Your task to perform on an android device: What's on my calendar tomorrow? Image 0: 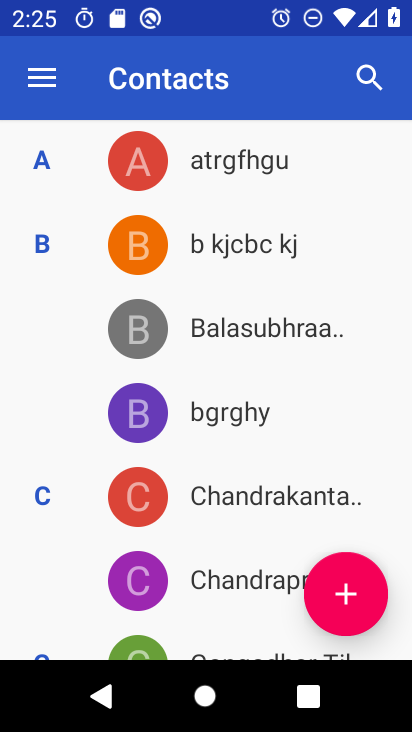
Step 0: press back button
Your task to perform on an android device: What's on my calendar tomorrow? Image 1: 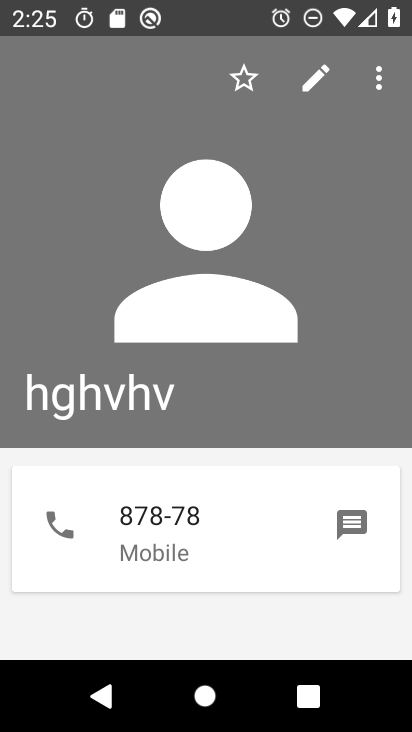
Step 1: press back button
Your task to perform on an android device: What's on my calendar tomorrow? Image 2: 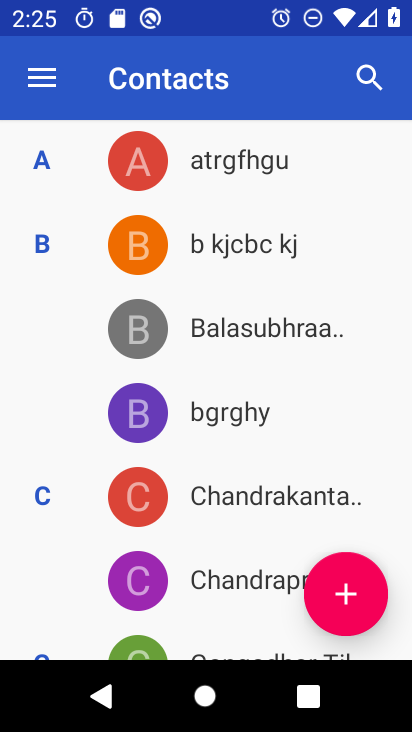
Step 2: press back button
Your task to perform on an android device: What's on my calendar tomorrow? Image 3: 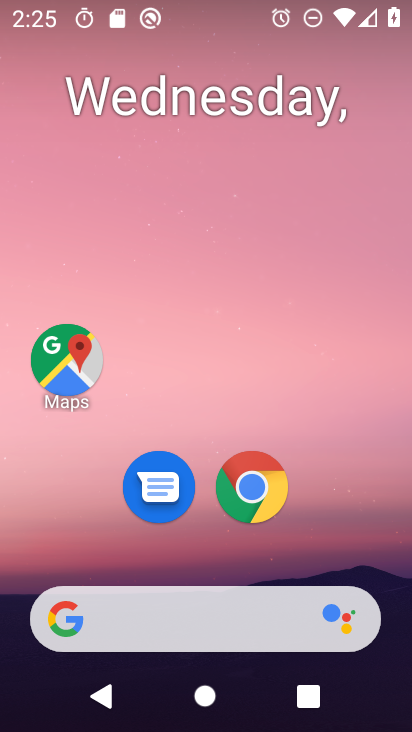
Step 3: drag from (209, 604) to (312, 9)
Your task to perform on an android device: What's on my calendar tomorrow? Image 4: 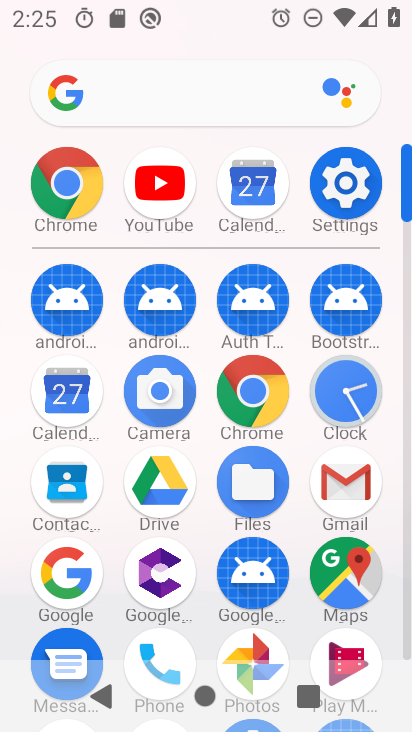
Step 4: click (53, 403)
Your task to perform on an android device: What's on my calendar tomorrow? Image 5: 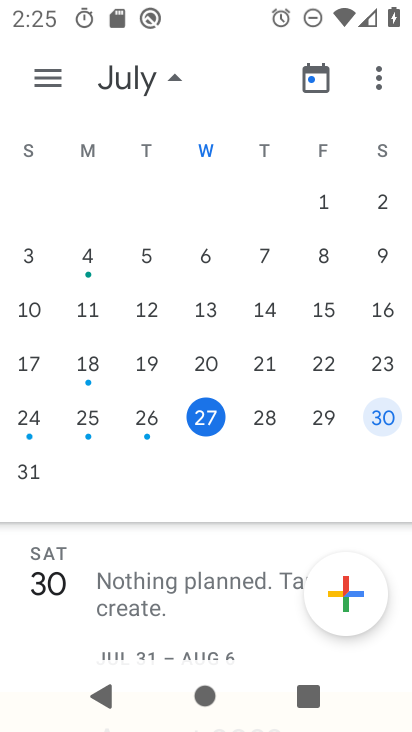
Step 5: click (266, 423)
Your task to perform on an android device: What's on my calendar tomorrow? Image 6: 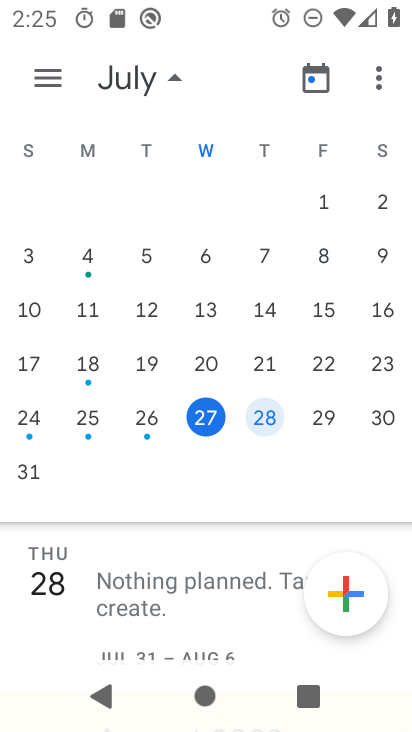
Step 6: task complete